Your task to perform on an android device: Go to Wikipedia Image 0: 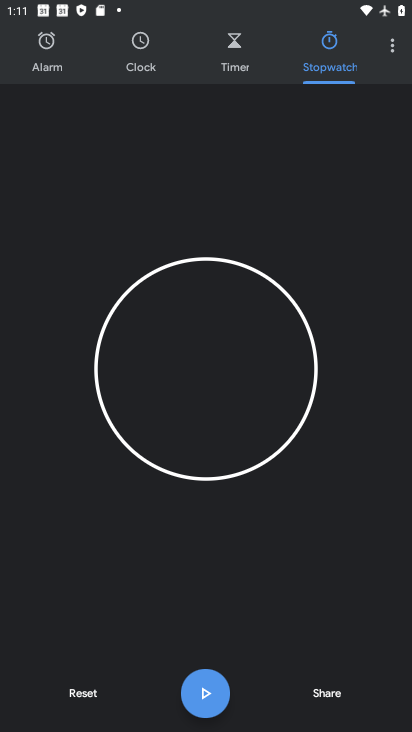
Step 0: press home button
Your task to perform on an android device: Go to Wikipedia Image 1: 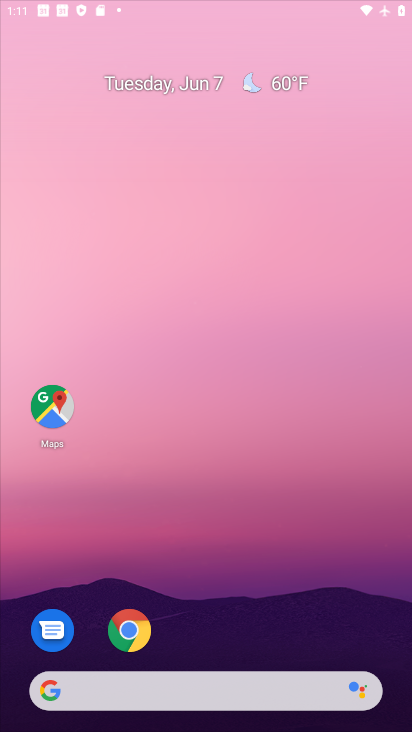
Step 1: drag from (373, 618) to (266, 40)
Your task to perform on an android device: Go to Wikipedia Image 2: 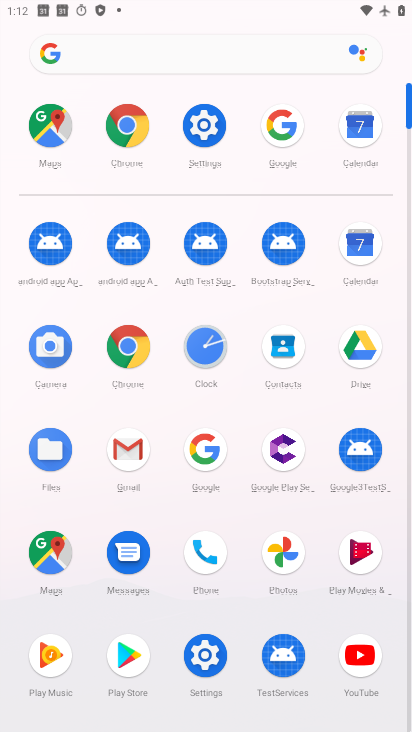
Step 2: click (196, 457)
Your task to perform on an android device: Go to Wikipedia Image 3: 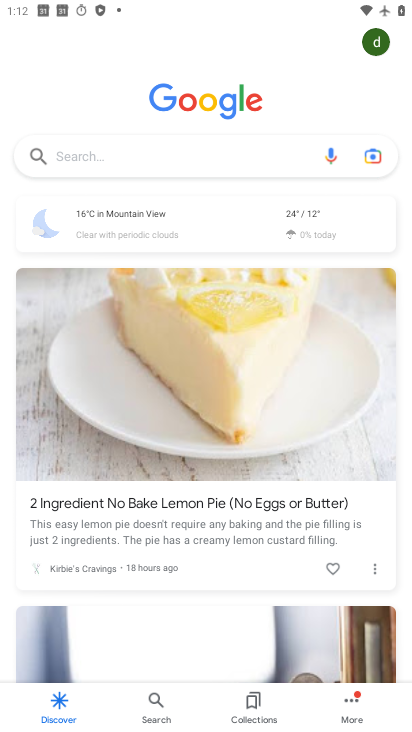
Step 3: click (129, 166)
Your task to perform on an android device: Go to Wikipedia Image 4: 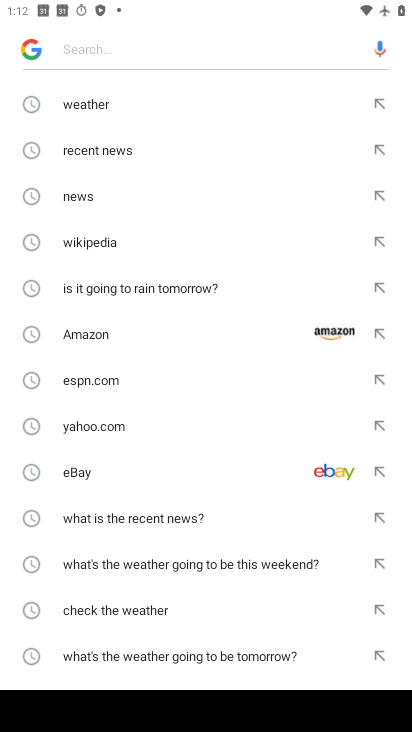
Step 4: click (108, 243)
Your task to perform on an android device: Go to Wikipedia Image 5: 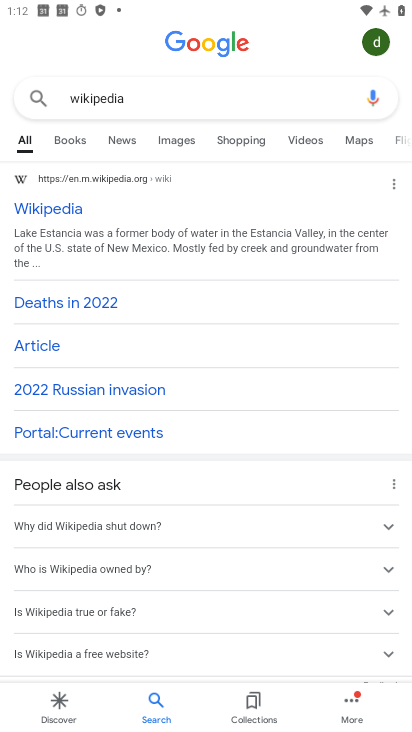
Step 5: task complete